Your task to perform on an android device: star an email in the gmail app Image 0: 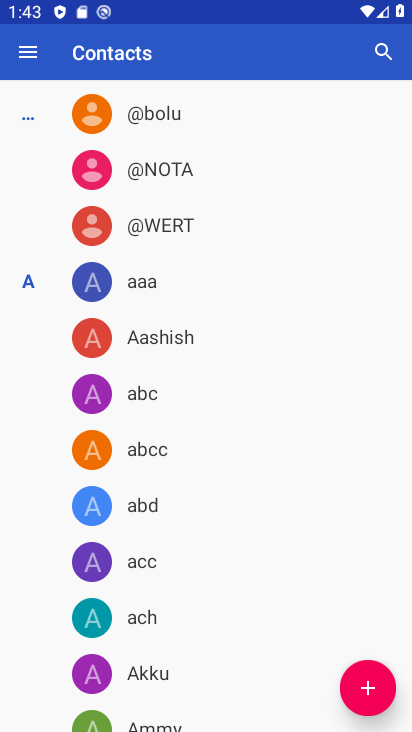
Step 0: press home button
Your task to perform on an android device: star an email in the gmail app Image 1: 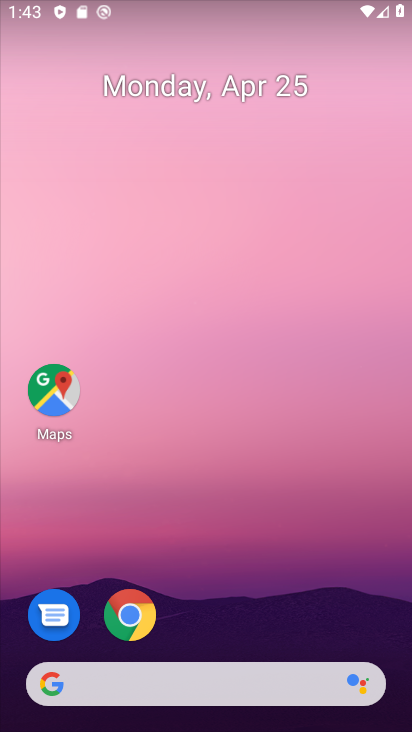
Step 1: drag from (328, 385) to (326, 59)
Your task to perform on an android device: star an email in the gmail app Image 2: 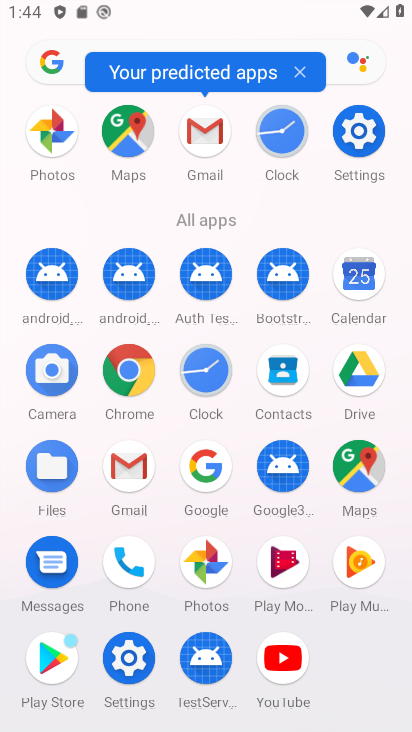
Step 2: click (202, 140)
Your task to perform on an android device: star an email in the gmail app Image 3: 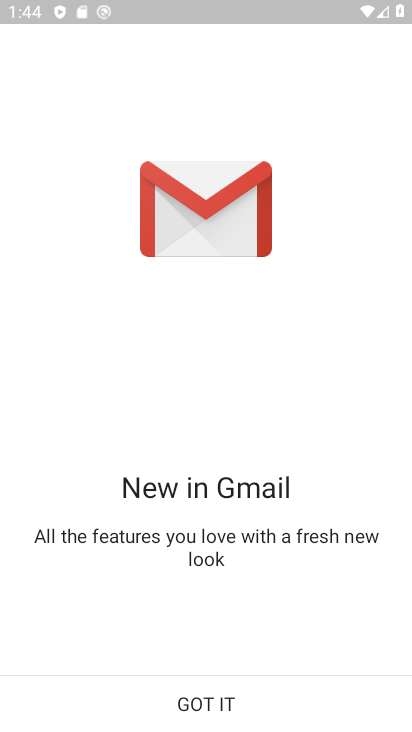
Step 3: click (213, 694)
Your task to perform on an android device: star an email in the gmail app Image 4: 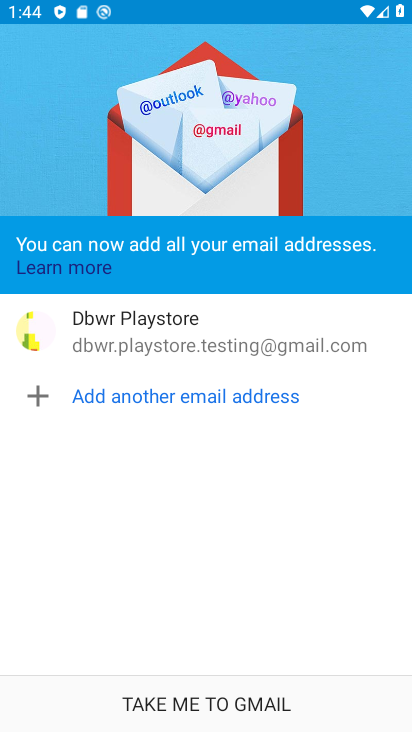
Step 4: click (249, 707)
Your task to perform on an android device: star an email in the gmail app Image 5: 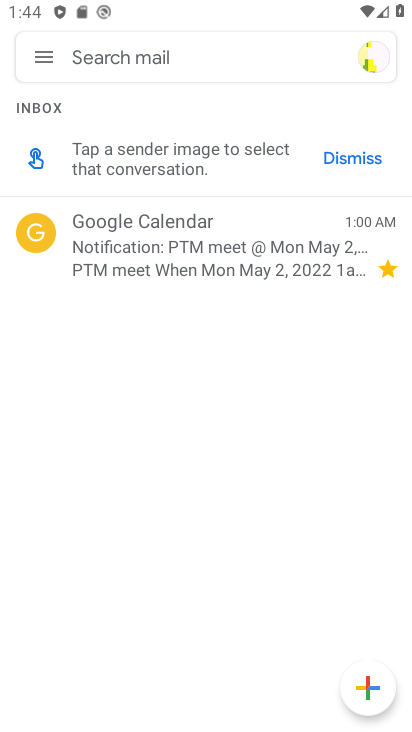
Step 5: task complete